Your task to perform on an android device: Go to display settings Image 0: 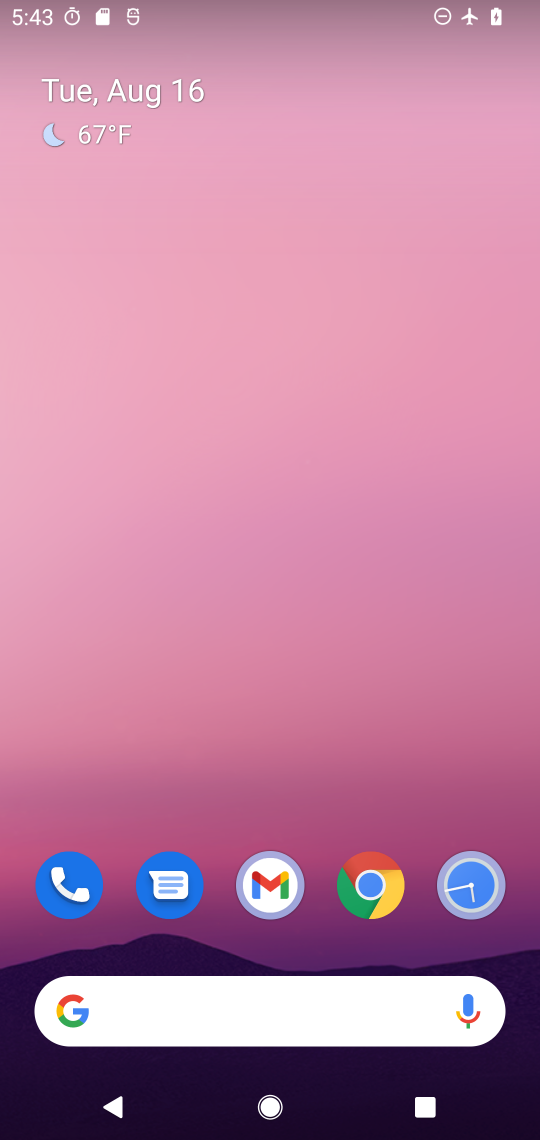
Step 0: drag from (167, 478) to (160, 103)
Your task to perform on an android device: Go to display settings Image 1: 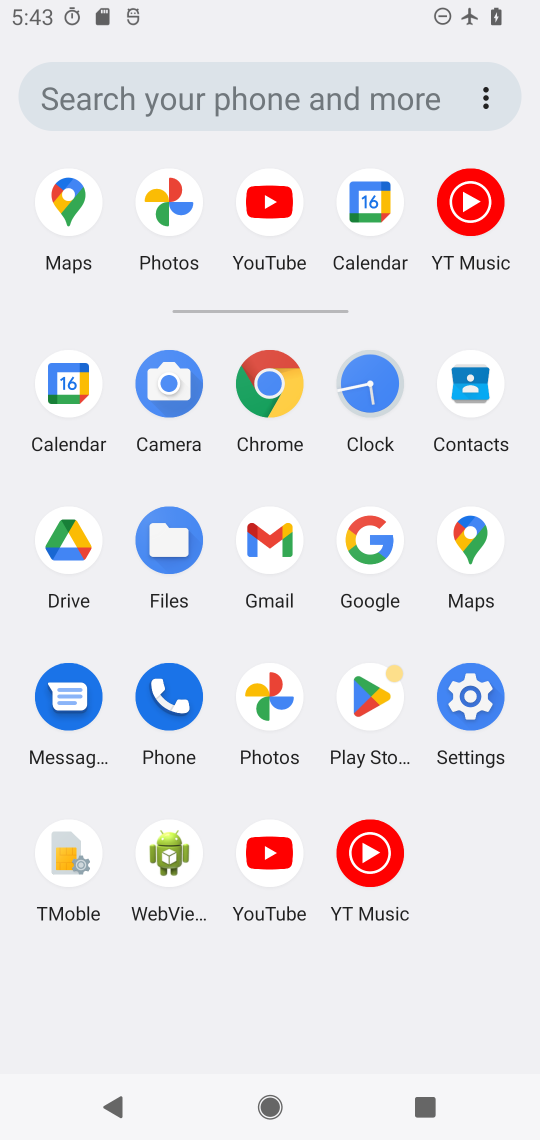
Step 1: click (468, 704)
Your task to perform on an android device: Go to display settings Image 2: 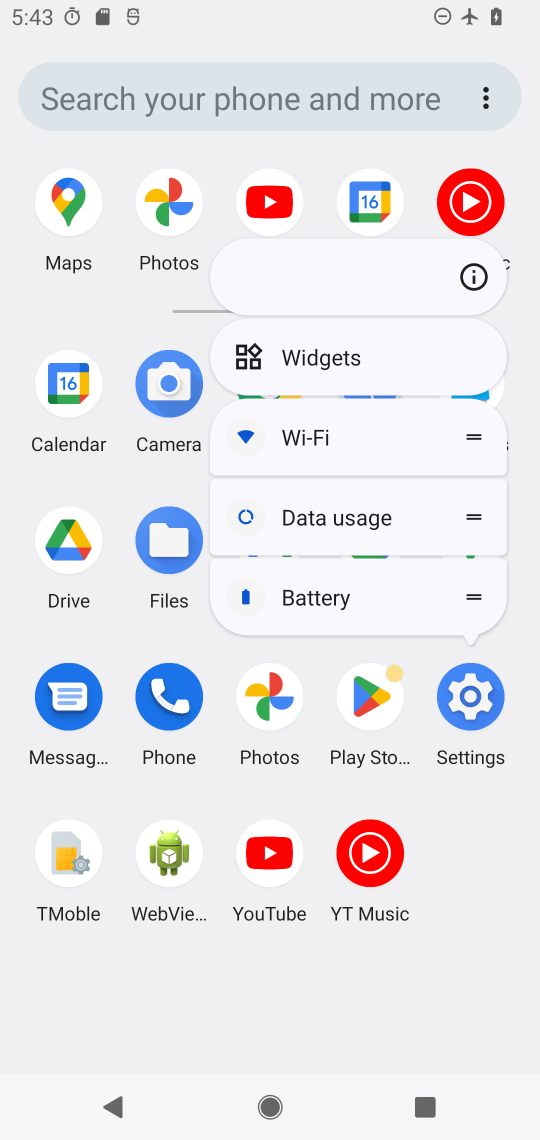
Step 2: click (484, 680)
Your task to perform on an android device: Go to display settings Image 3: 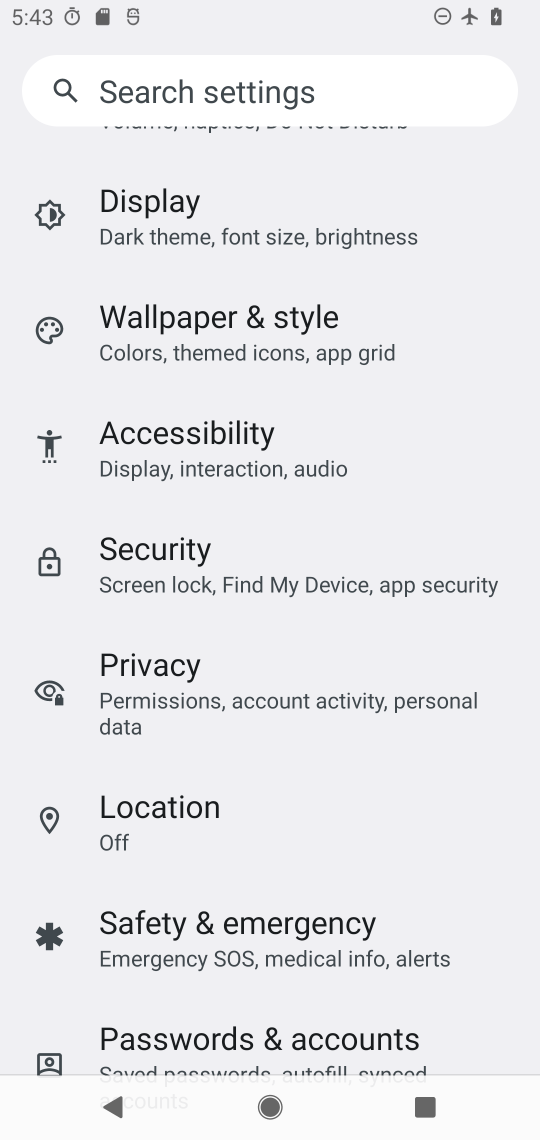
Step 3: drag from (163, 917) to (210, 988)
Your task to perform on an android device: Go to display settings Image 4: 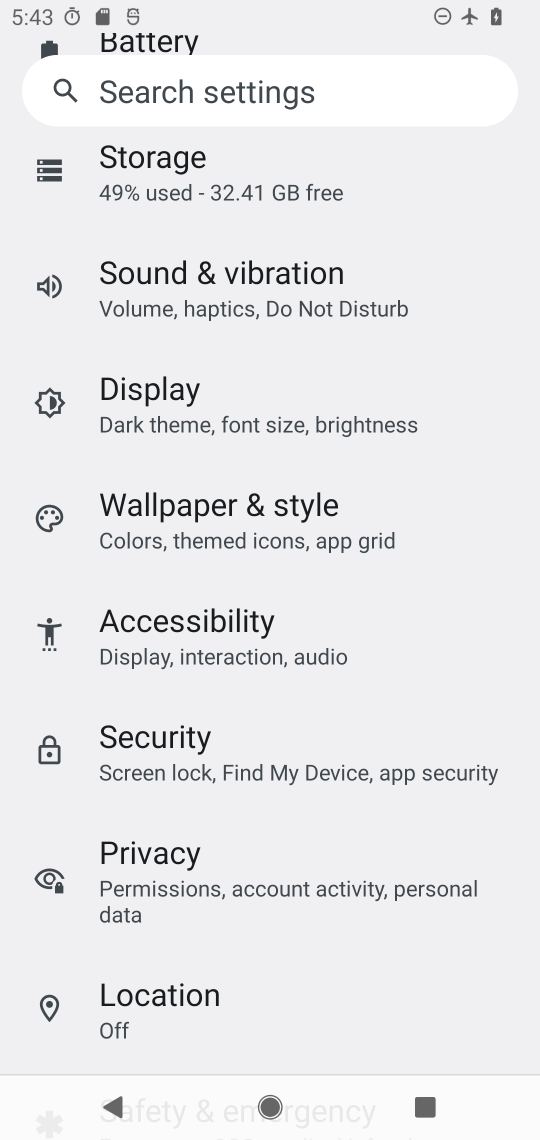
Step 4: click (187, 405)
Your task to perform on an android device: Go to display settings Image 5: 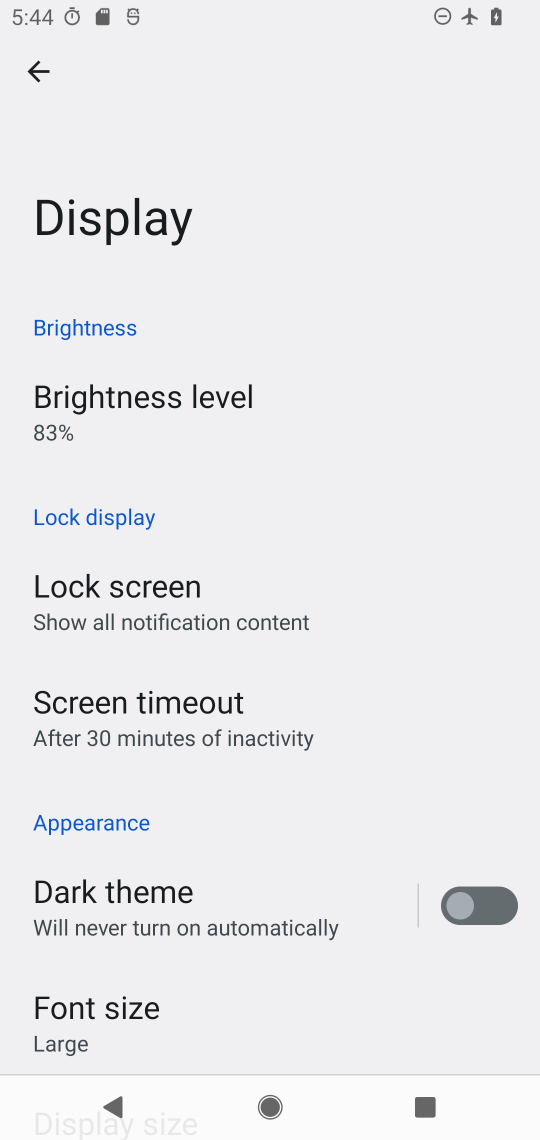
Step 5: task complete